Your task to perform on an android device: Open eBay Image 0: 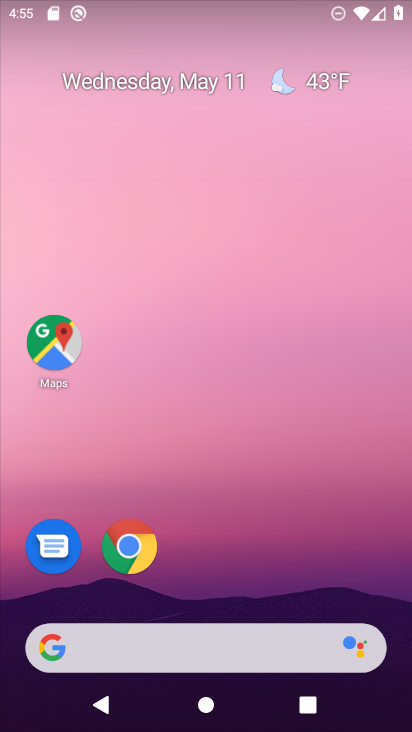
Step 0: click (131, 535)
Your task to perform on an android device: Open eBay Image 1: 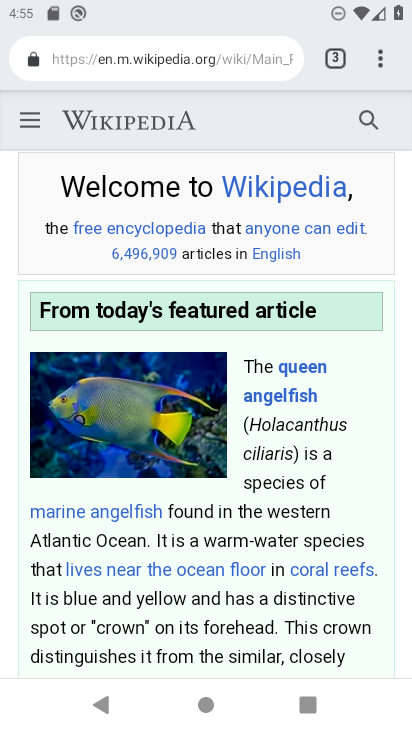
Step 1: press home button
Your task to perform on an android device: Open eBay Image 2: 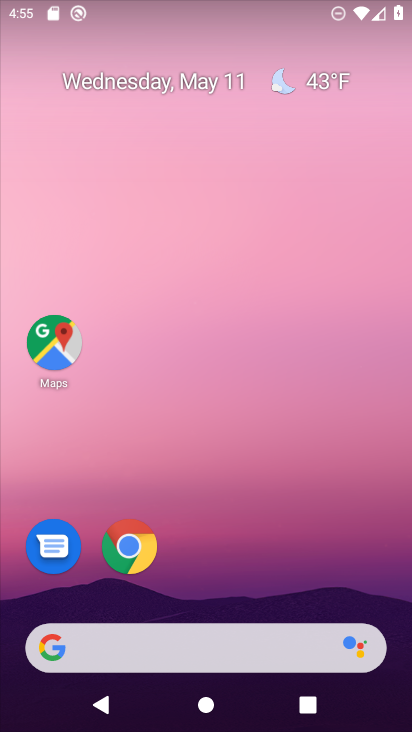
Step 2: click (141, 551)
Your task to perform on an android device: Open eBay Image 3: 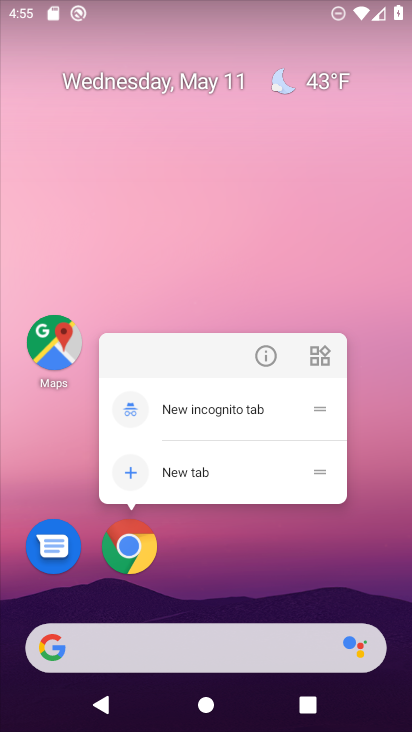
Step 3: click (123, 543)
Your task to perform on an android device: Open eBay Image 4: 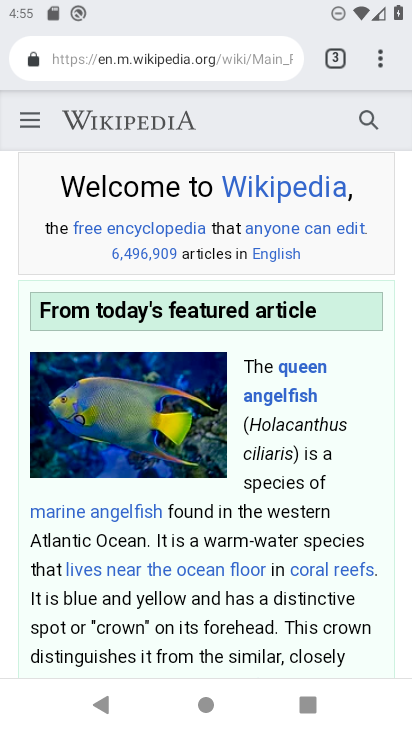
Step 4: click (337, 50)
Your task to perform on an android device: Open eBay Image 5: 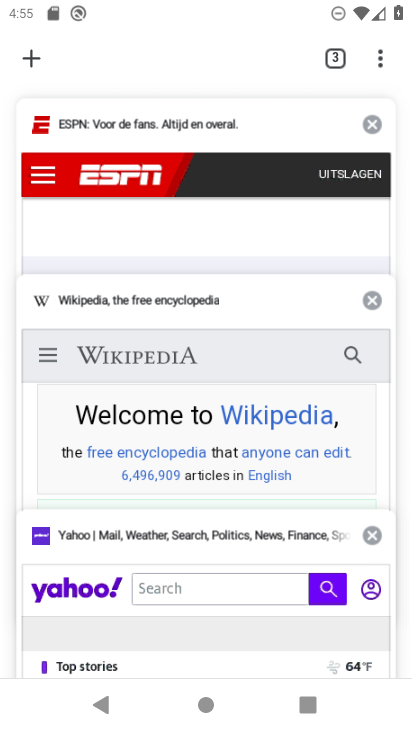
Step 5: click (379, 125)
Your task to perform on an android device: Open eBay Image 6: 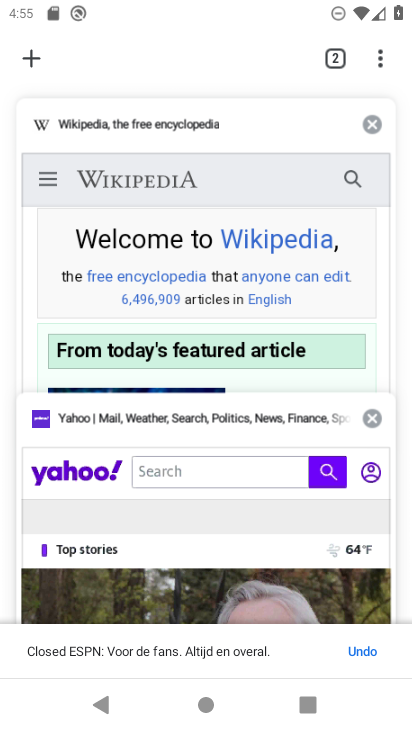
Step 6: click (379, 125)
Your task to perform on an android device: Open eBay Image 7: 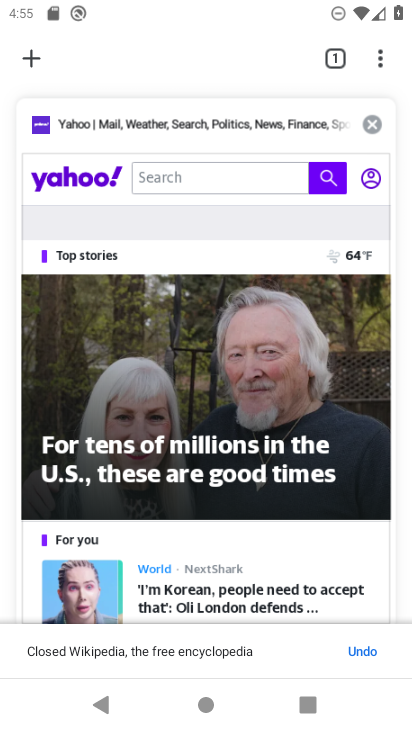
Step 7: click (379, 125)
Your task to perform on an android device: Open eBay Image 8: 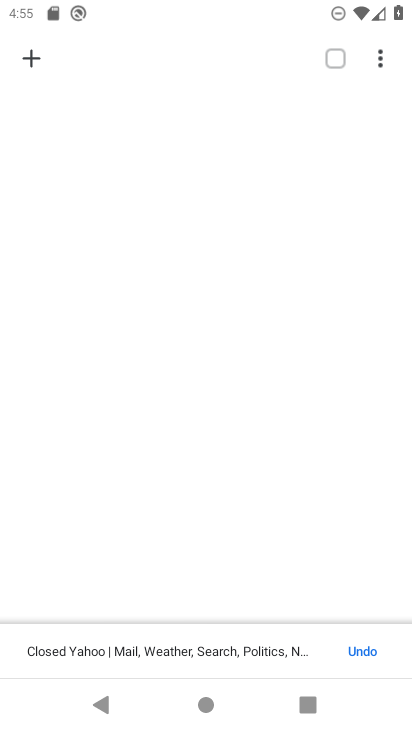
Step 8: click (17, 50)
Your task to perform on an android device: Open eBay Image 9: 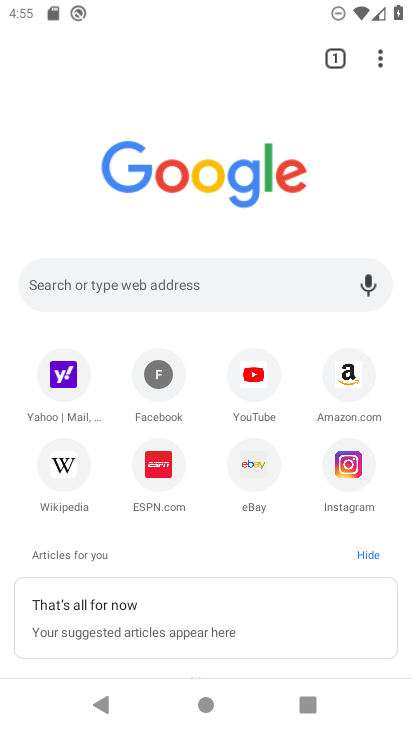
Step 9: click (243, 463)
Your task to perform on an android device: Open eBay Image 10: 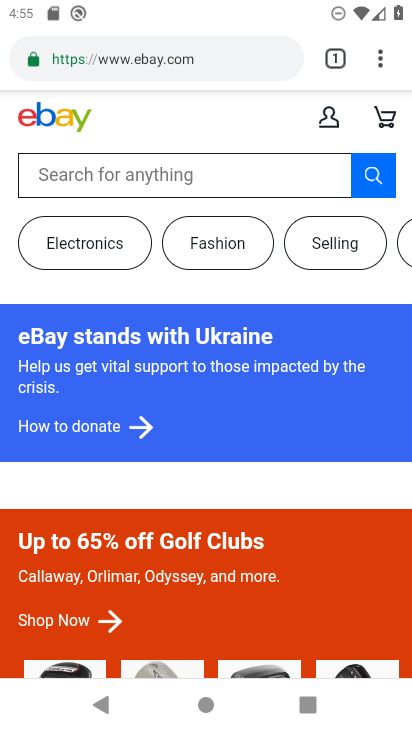
Step 10: task complete